Your task to perform on an android device: refresh tabs in the chrome app Image 0: 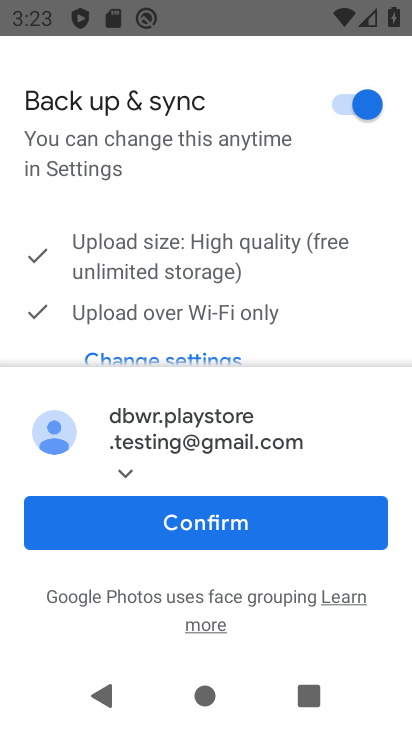
Step 0: press home button
Your task to perform on an android device: refresh tabs in the chrome app Image 1: 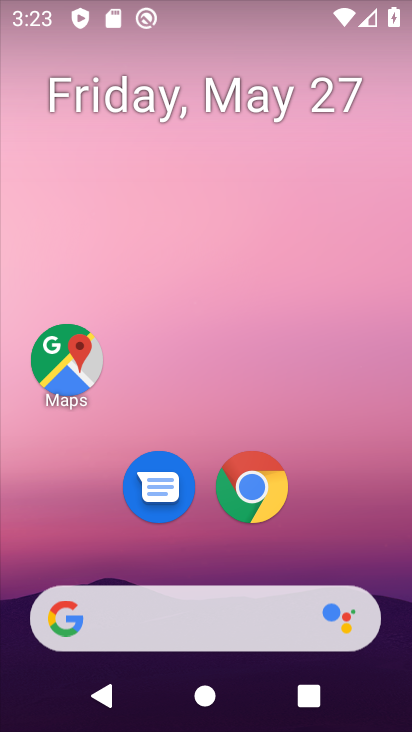
Step 1: click (244, 478)
Your task to perform on an android device: refresh tabs in the chrome app Image 2: 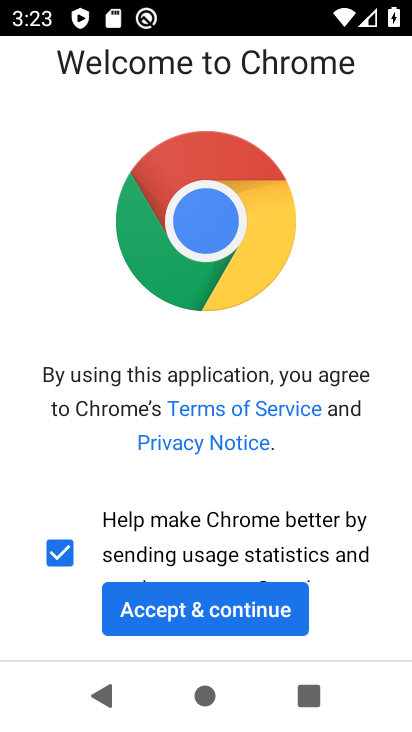
Step 2: click (227, 621)
Your task to perform on an android device: refresh tabs in the chrome app Image 3: 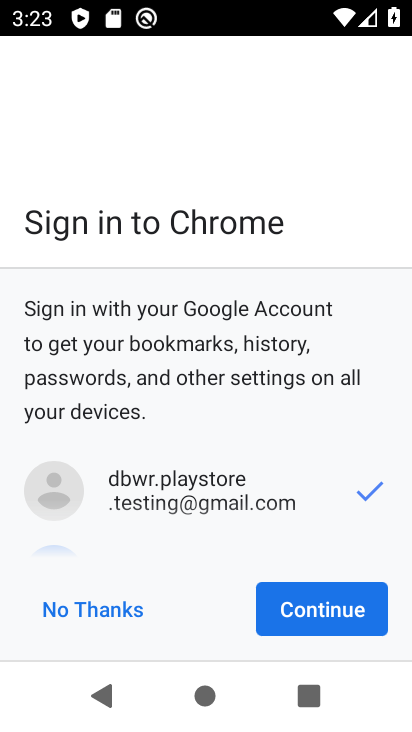
Step 3: click (281, 615)
Your task to perform on an android device: refresh tabs in the chrome app Image 4: 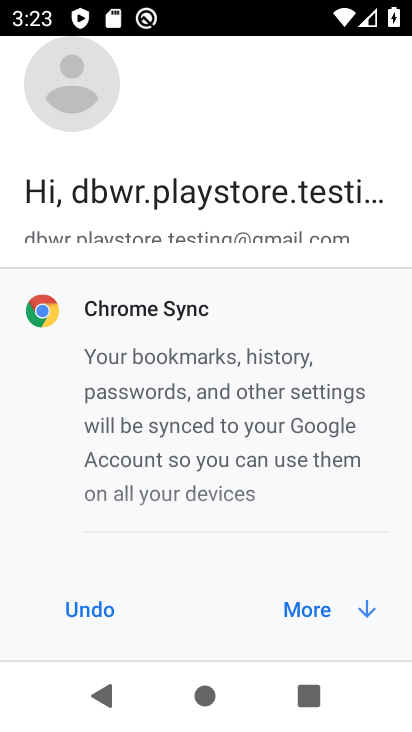
Step 4: click (281, 615)
Your task to perform on an android device: refresh tabs in the chrome app Image 5: 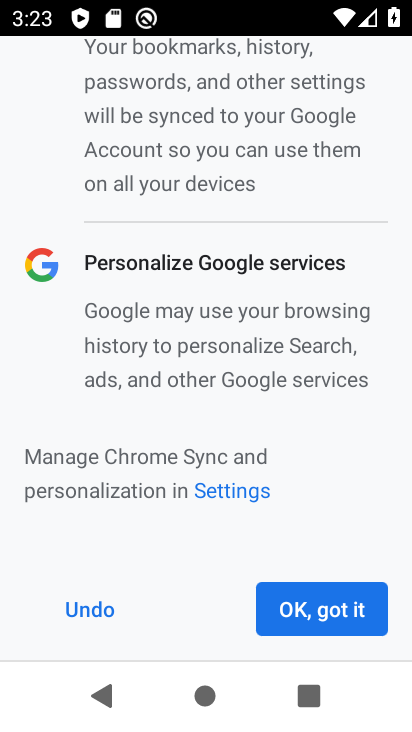
Step 5: click (281, 615)
Your task to perform on an android device: refresh tabs in the chrome app Image 6: 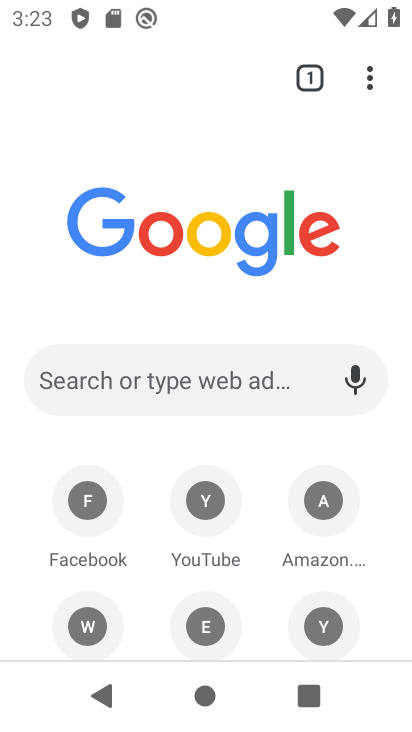
Step 6: click (373, 97)
Your task to perform on an android device: refresh tabs in the chrome app Image 7: 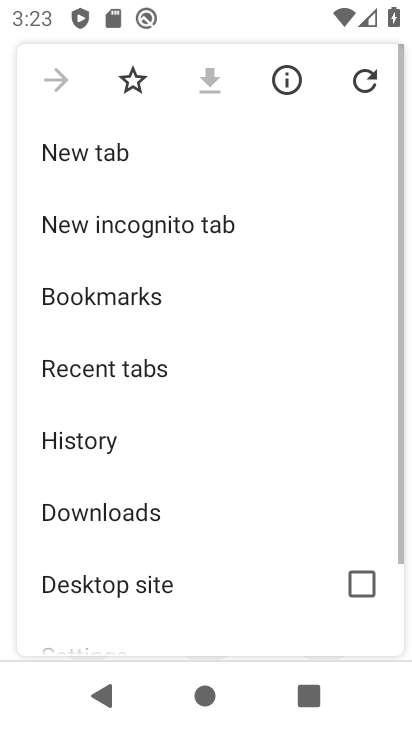
Step 7: click (373, 97)
Your task to perform on an android device: refresh tabs in the chrome app Image 8: 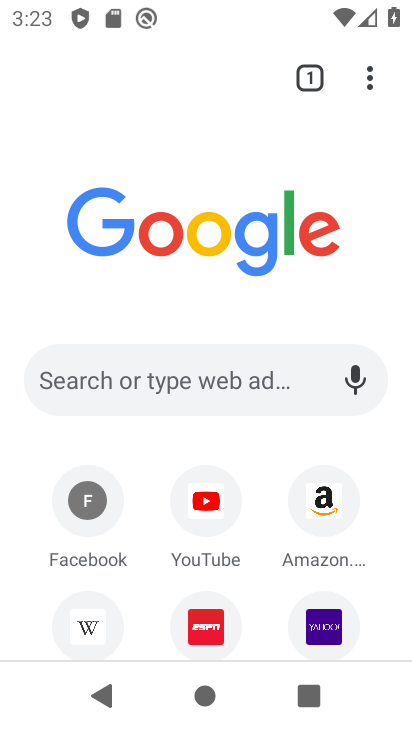
Step 8: task complete